Your task to perform on an android device: delete location history Image 0: 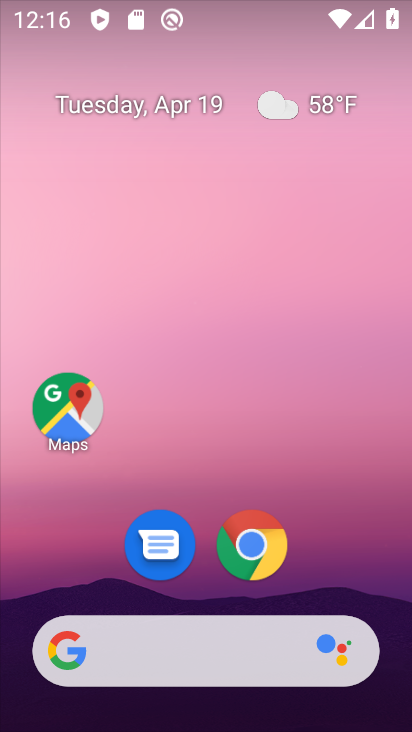
Step 0: click (51, 389)
Your task to perform on an android device: delete location history Image 1: 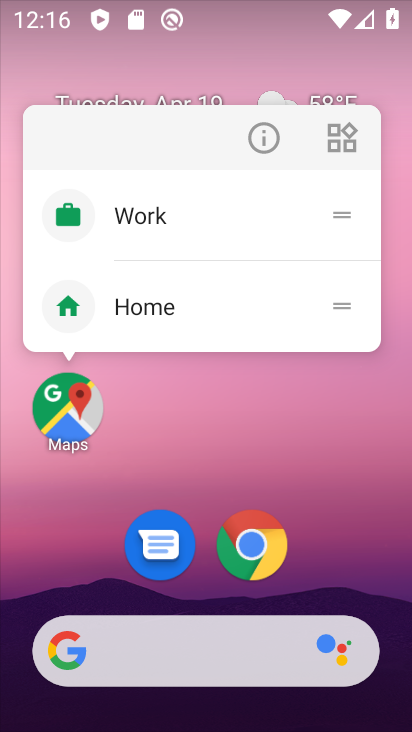
Step 1: click (64, 400)
Your task to perform on an android device: delete location history Image 2: 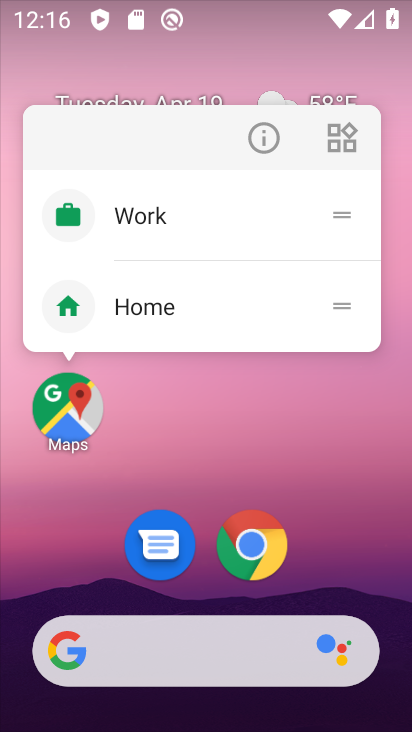
Step 2: click (71, 415)
Your task to perform on an android device: delete location history Image 3: 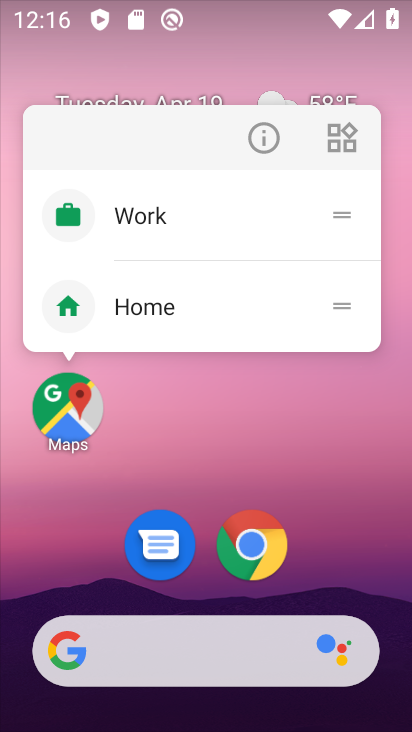
Step 3: click (73, 414)
Your task to perform on an android device: delete location history Image 4: 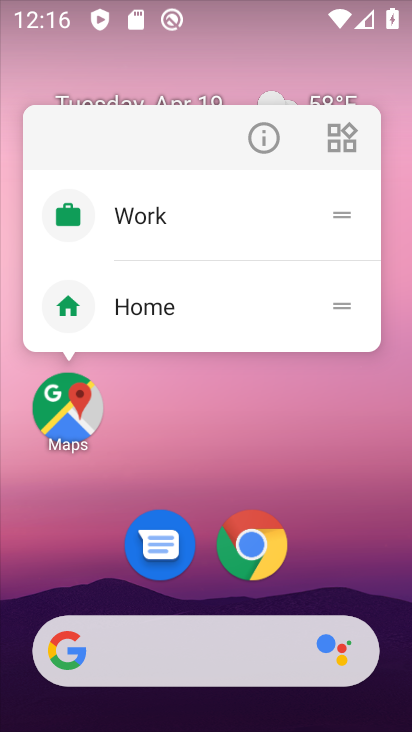
Step 4: click (77, 395)
Your task to perform on an android device: delete location history Image 5: 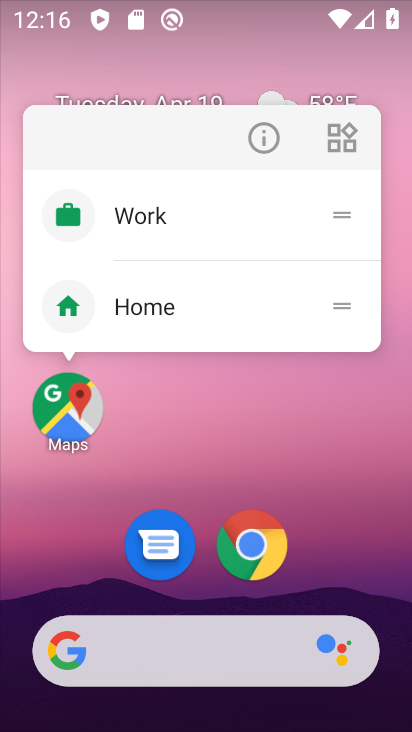
Step 5: click (71, 414)
Your task to perform on an android device: delete location history Image 6: 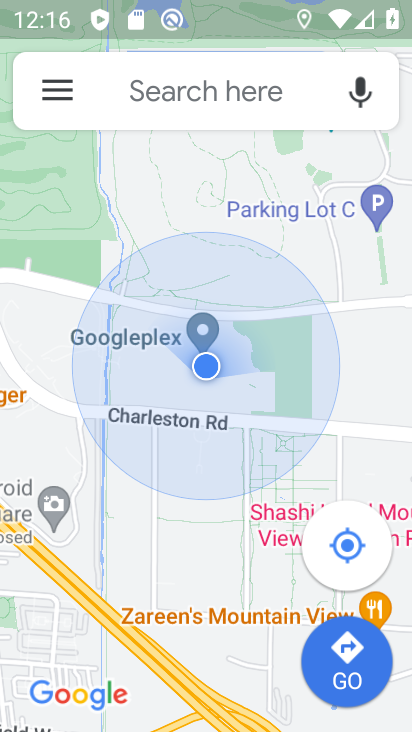
Step 6: click (41, 80)
Your task to perform on an android device: delete location history Image 7: 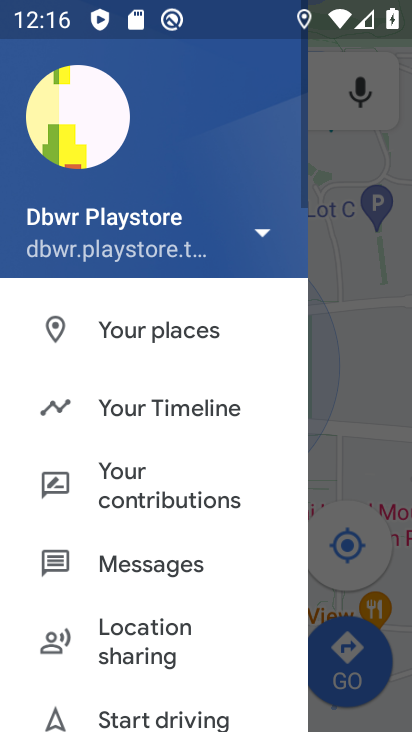
Step 7: click (200, 403)
Your task to perform on an android device: delete location history Image 8: 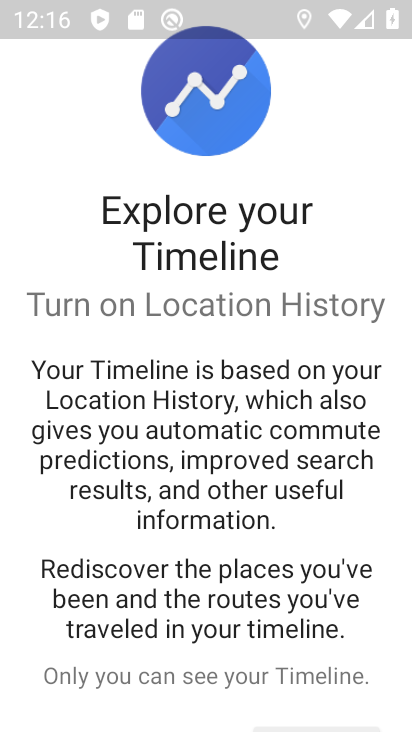
Step 8: drag from (210, 552) to (264, 4)
Your task to perform on an android device: delete location history Image 9: 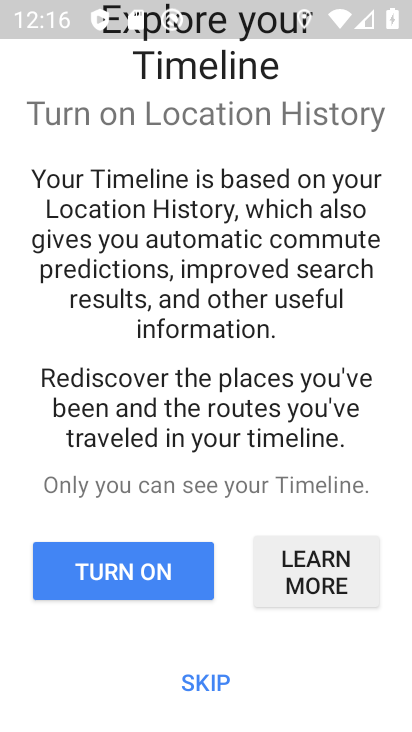
Step 9: drag from (178, 409) to (254, 63)
Your task to perform on an android device: delete location history Image 10: 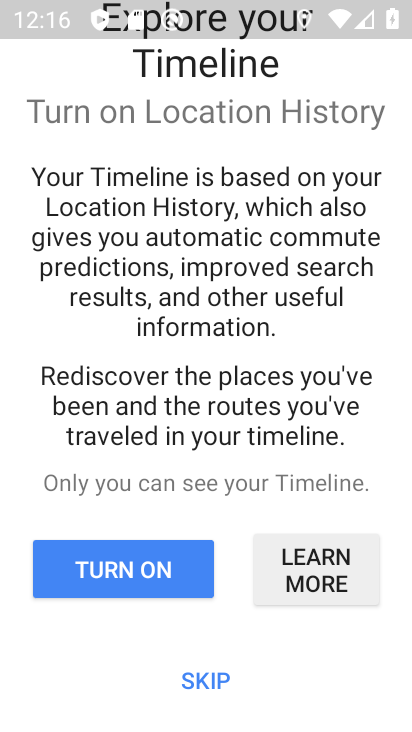
Step 10: click (188, 687)
Your task to perform on an android device: delete location history Image 11: 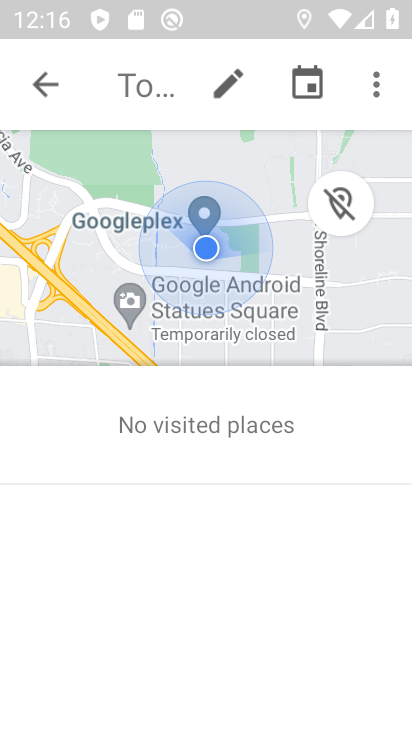
Step 11: click (382, 72)
Your task to perform on an android device: delete location history Image 12: 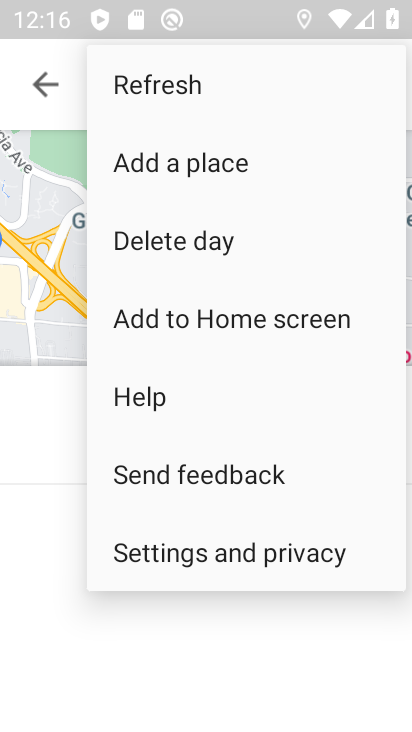
Step 12: click (170, 546)
Your task to perform on an android device: delete location history Image 13: 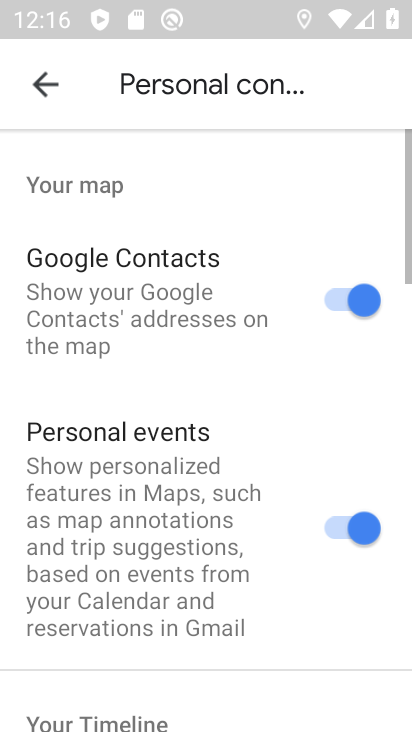
Step 13: drag from (152, 614) to (243, 83)
Your task to perform on an android device: delete location history Image 14: 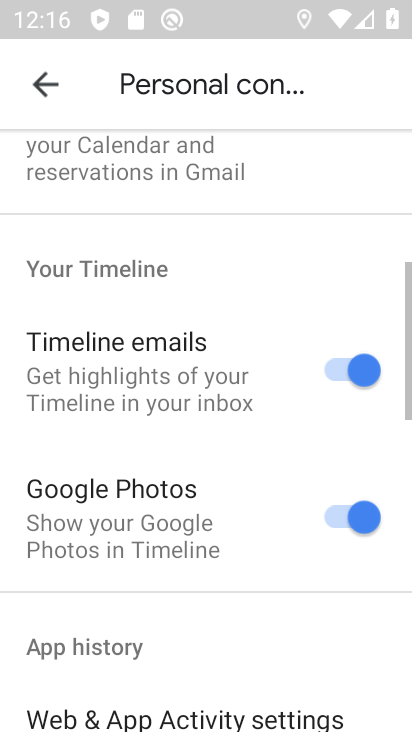
Step 14: drag from (179, 628) to (255, 56)
Your task to perform on an android device: delete location history Image 15: 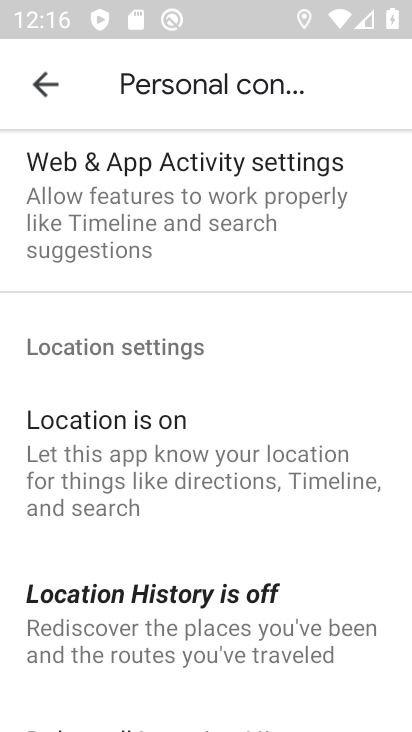
Step 15: drag from (217, 571) to (306, 207)
Your task to perform on an android device: delete location history Image 16: 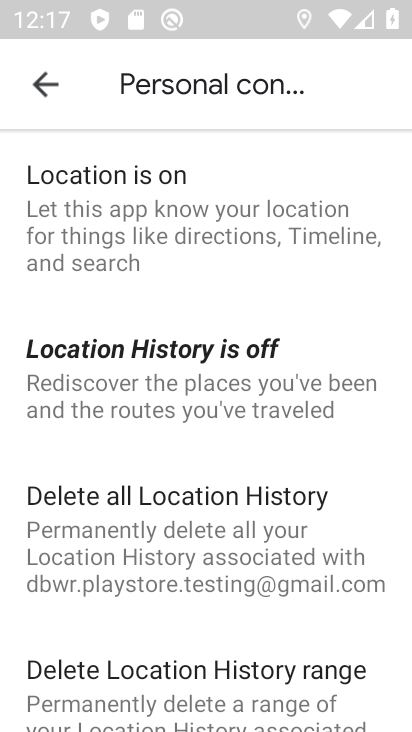
Step 16: click (197, 513)
Your task to perform on an android device: delete location history Image 17: 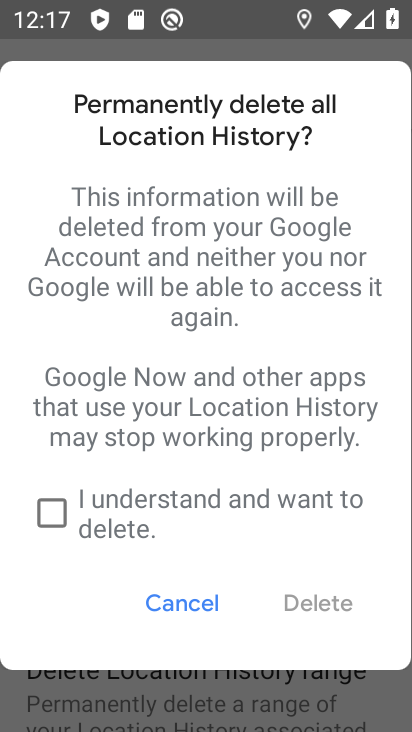
Step 17: click (57, 512)
Your task to perform on an android device: delete location history Image 18: 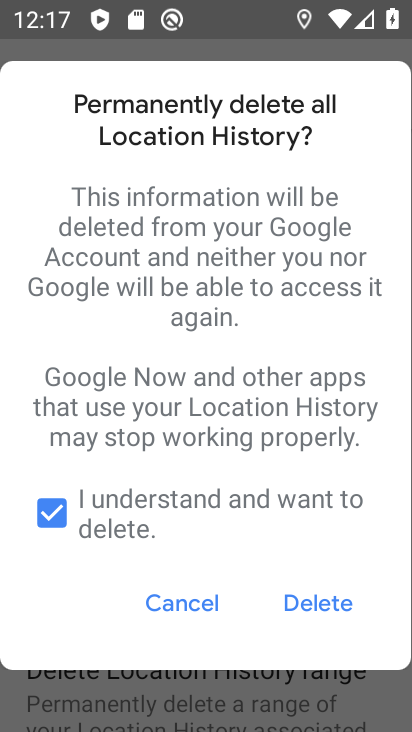
Step 18: click (335, 596)
Your task to perform on an android device: delete location history Image 19: 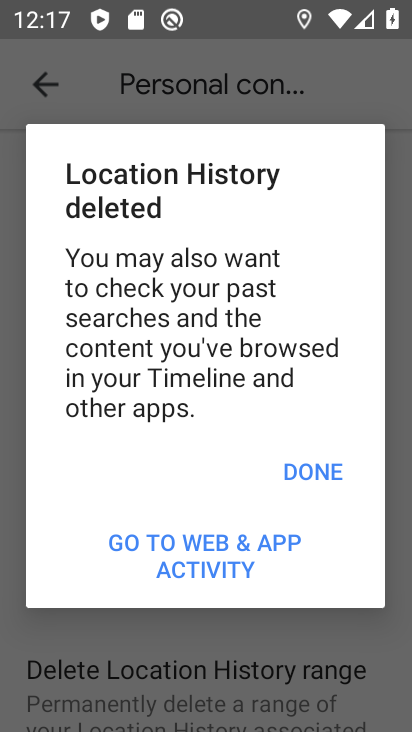
Step 19: click (297, 469)
Your task to perform on an android device: delete location history Image 20: 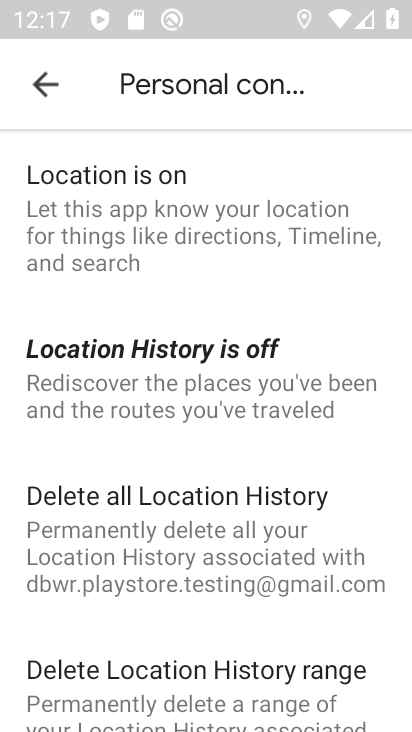
Step 20: task complete